Your task to perform on an android device: delete the emails in spam in the gmail app Image 0: 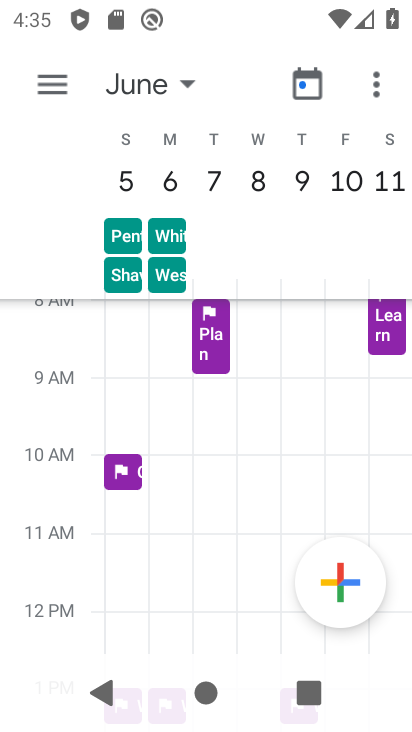
Step 0: press back button
Your task to perform on an android device: delete the emails in spam in the gmail app Image 1: 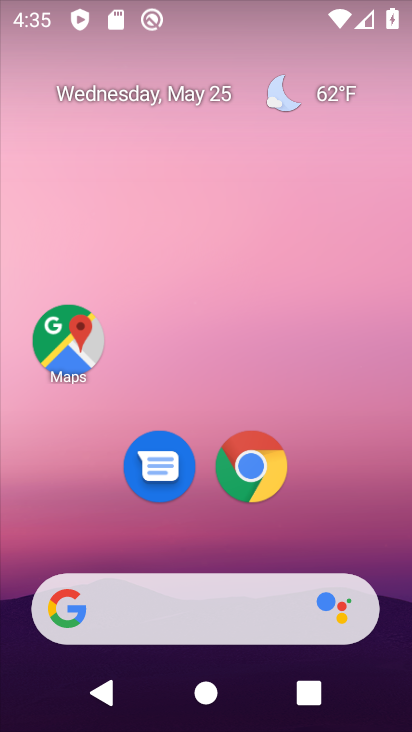
Step 1: drag from (306, 531) to (229, 130)
Your task to perform on an android device: delete the emails in spam in the gmail app Image 2: 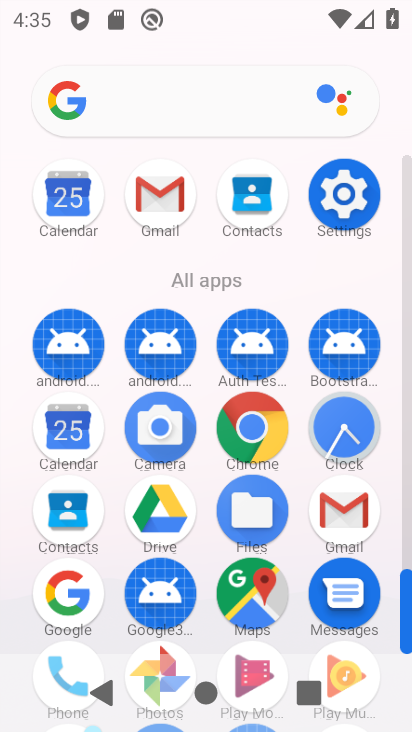
Step 2: click (156, 194)
Your task to perform on an android device: delete the emails in spam in the gmail app Image 3: 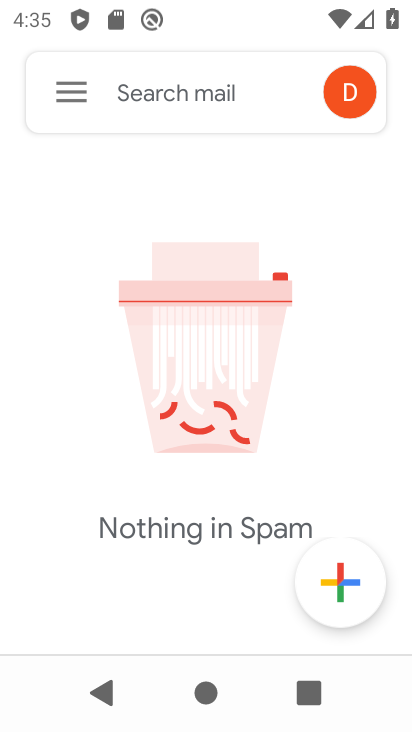
Step 3: task complete